Your task to perform on an android device: open a bookmark in the chrome app Image 0: 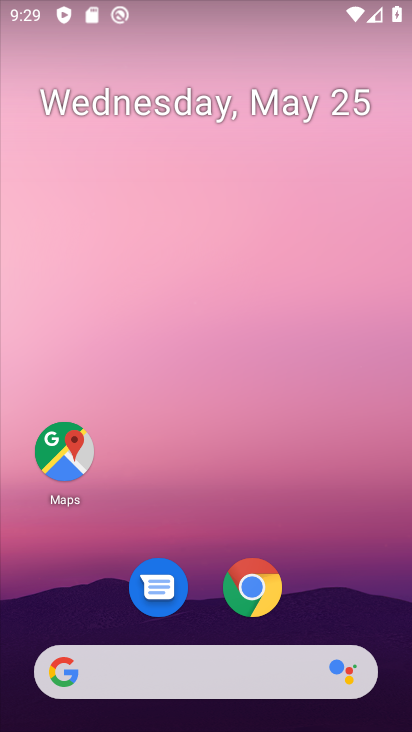
Step 0: click (253, 584)
Your task to perform on an android device: open a bookmark in the chrome app Image 1: 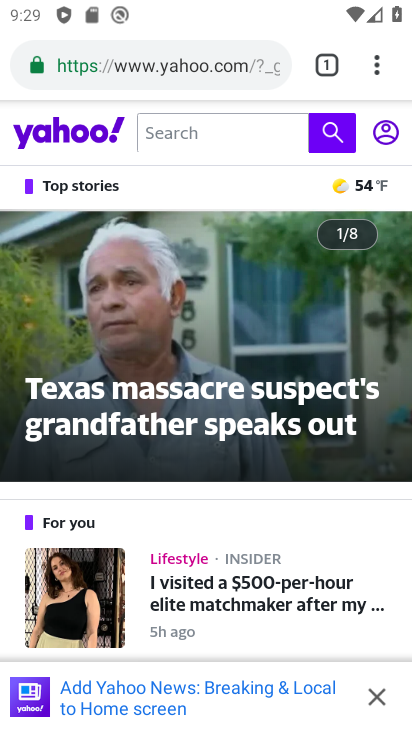
Step 1: click (385, 47)
Your task to perform on an android device: open a bookmark in the chrome app Image 2: 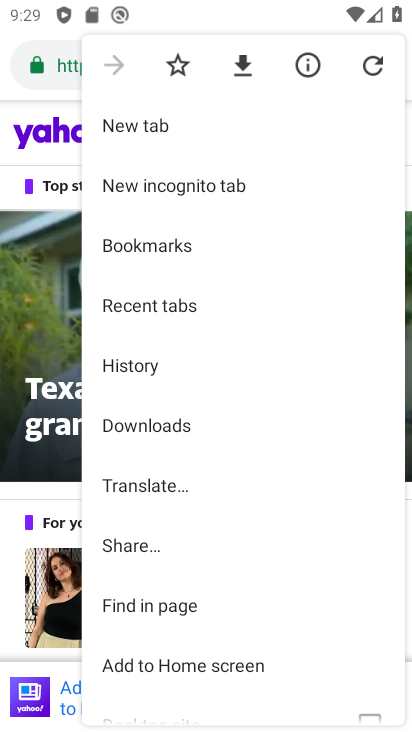
Step 2: drag from (147, 606) to (171, 239)
Your task to perform on an android device: open a bookmark in the chrome app Image 3: 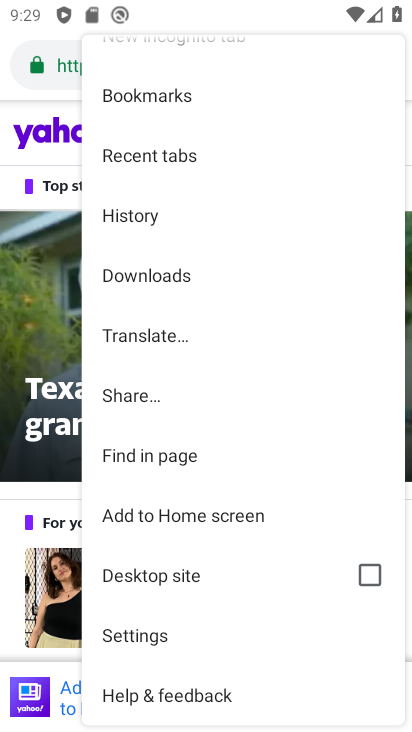
Step 3: click (185, 97)
Your task to perform on an android device: open a bookmark in the chrome app Image 4: 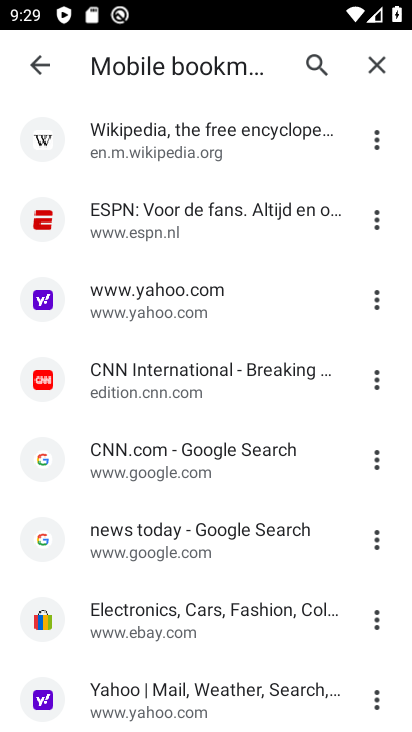
Step 4: click (174, 205)
Your task to perform on an android device: open a bookmark in the chrome app Image 5: 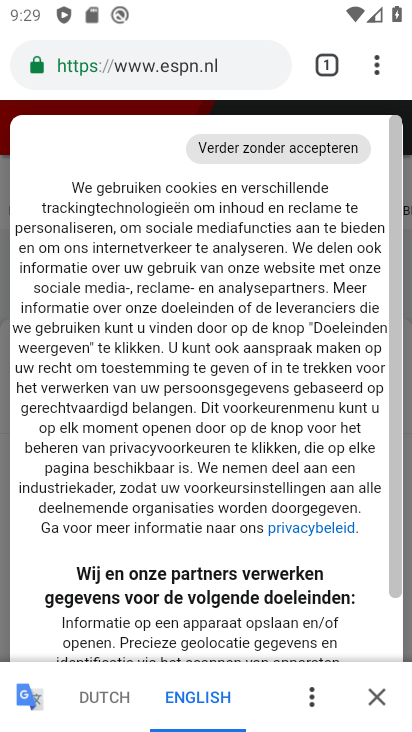
Step 5: click (372, 69)
Your task to perform on an android device: open a bookmark in the chrome app Image 6: 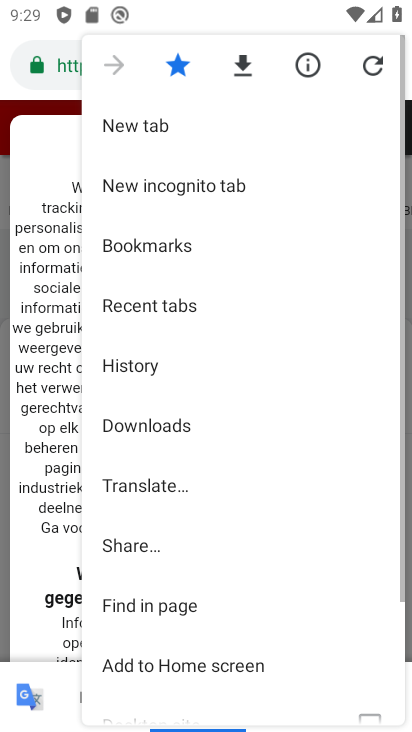
Step 6: click (171, 248)
Your task to perform on an android device: open a bookmark in the chrome app Image 7: 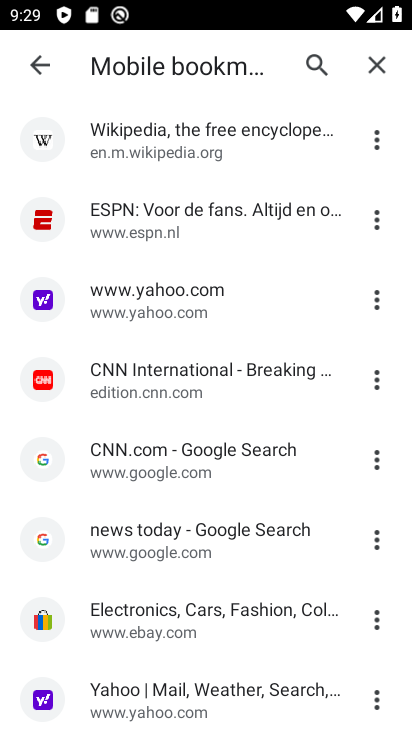
Step 7: click (192, 377)
Your task to perform on an android device: open a bookmark in the chrome app Image 8: 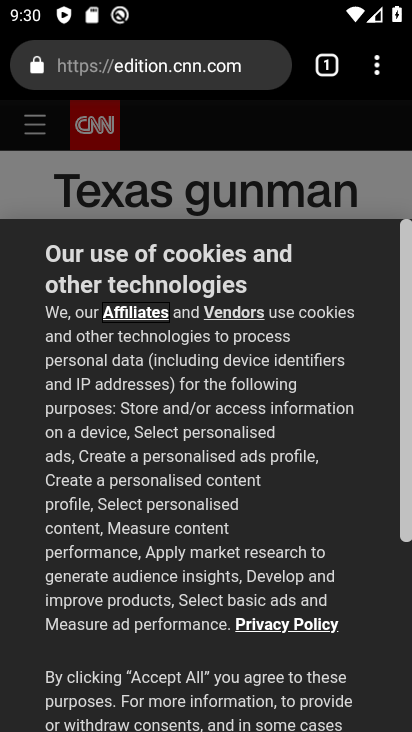
Step 8: task complete